Your task to perform on an android device: Open the map Image 0: 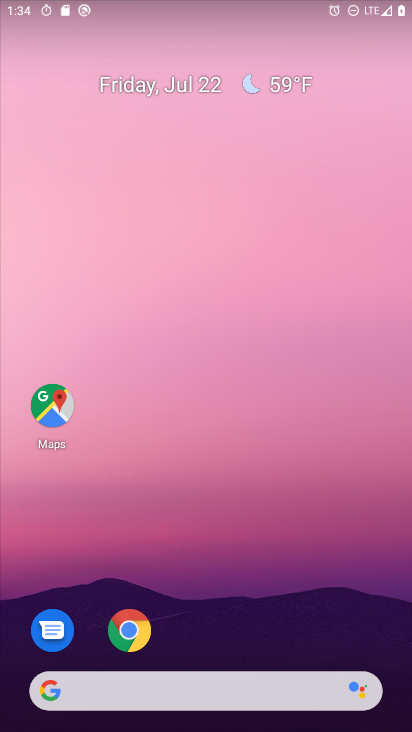
Step 0: press home button
Your task to perform on an android device: Open the map Image 1: 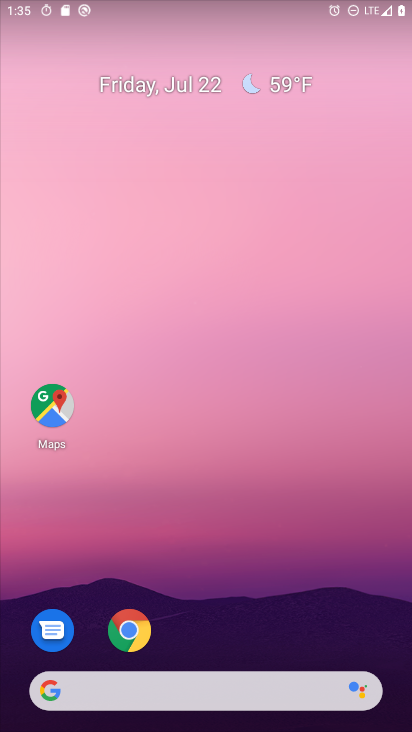
Step 1: drag from (272, 654) to (337, 16)
Your task to perform on an android device: Open the map Image 2: 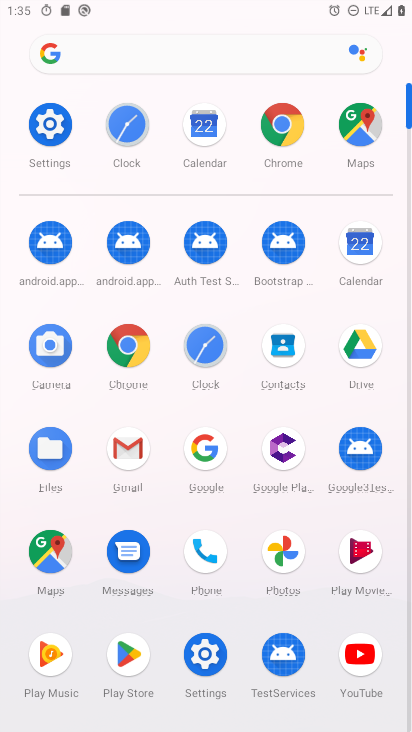
Step 2: click (355, 127)
Your task to perform on an android device: Open the map Image 3: 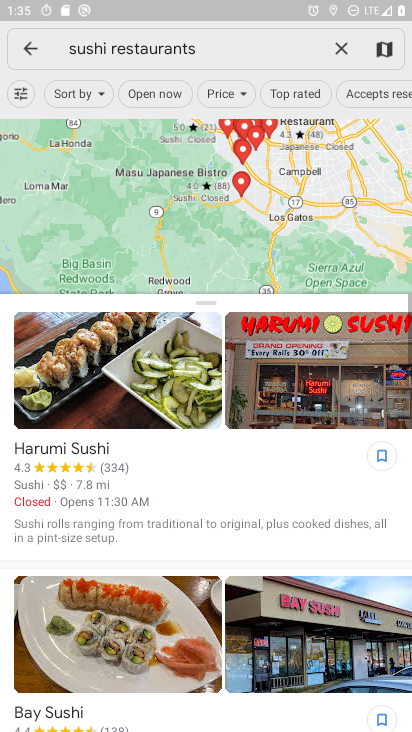
Step 3: click (342, 50)
Your task to perform on an android device: Open the map Image 4: 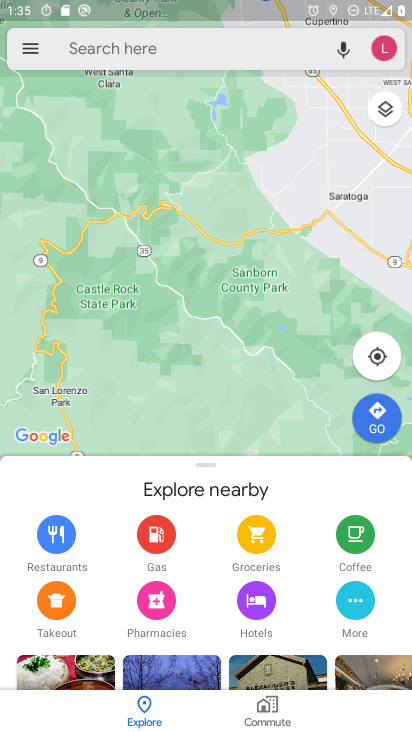
Step 4: task complete